Your task to perform on an android device: open app "Duolingo: language lessons" (install if not already installed) and go to login screen Image 0: 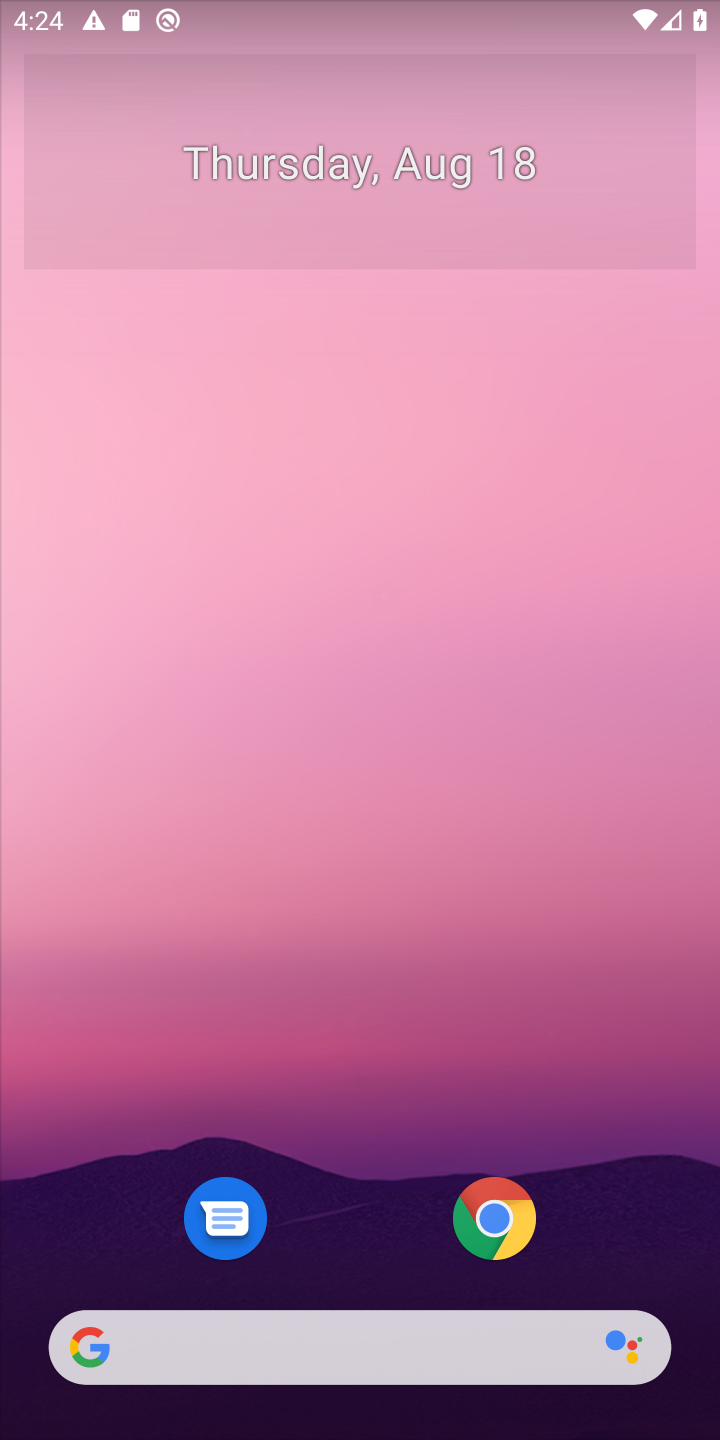
Step 0: drag from (402, 851) to (411, 344)
Your task to perform on an android device: open app "Duolingo: language lessons" (install if not already installed) and go to login screen Image 1: 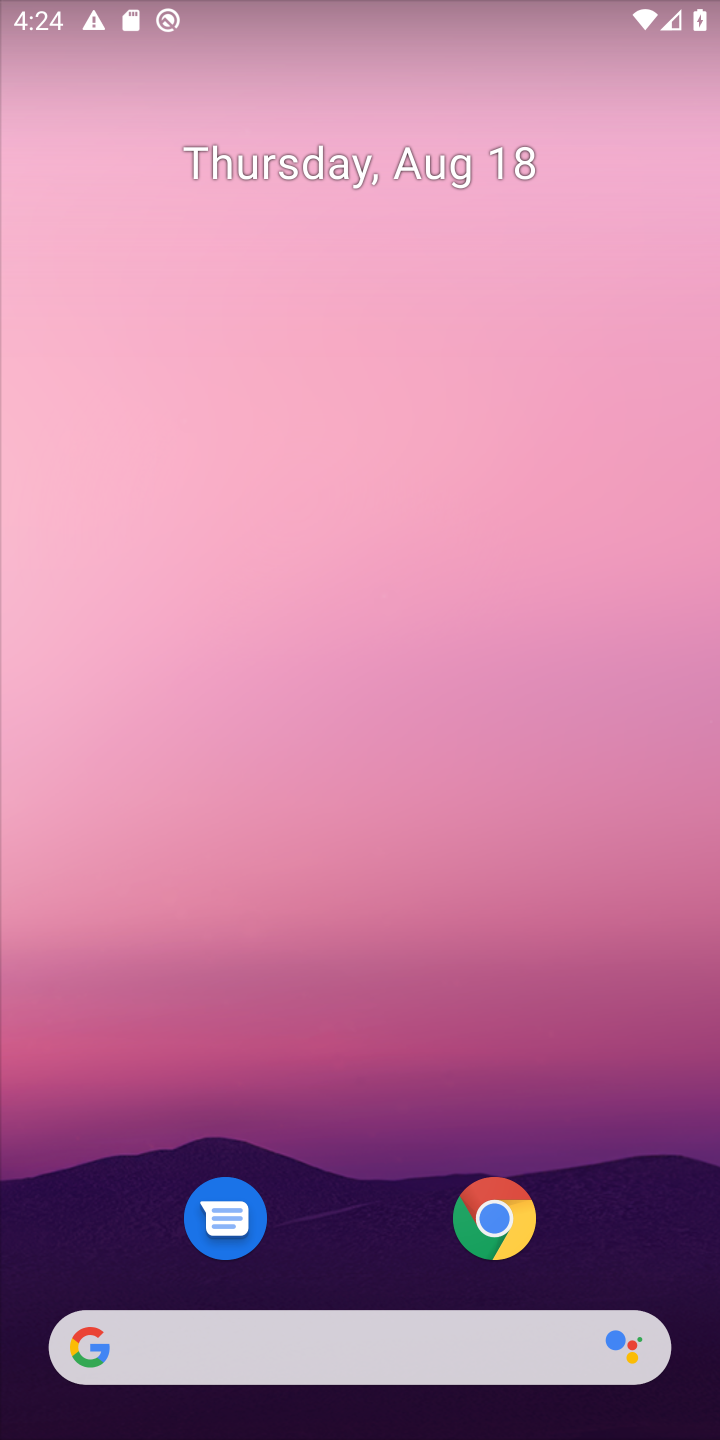
Step 1: drag from (367, 466) to (370, 297)
Your task to perform on an android device: open app "Duolingo: language lessons" (install if not already installed) and go to login screen Image 2: 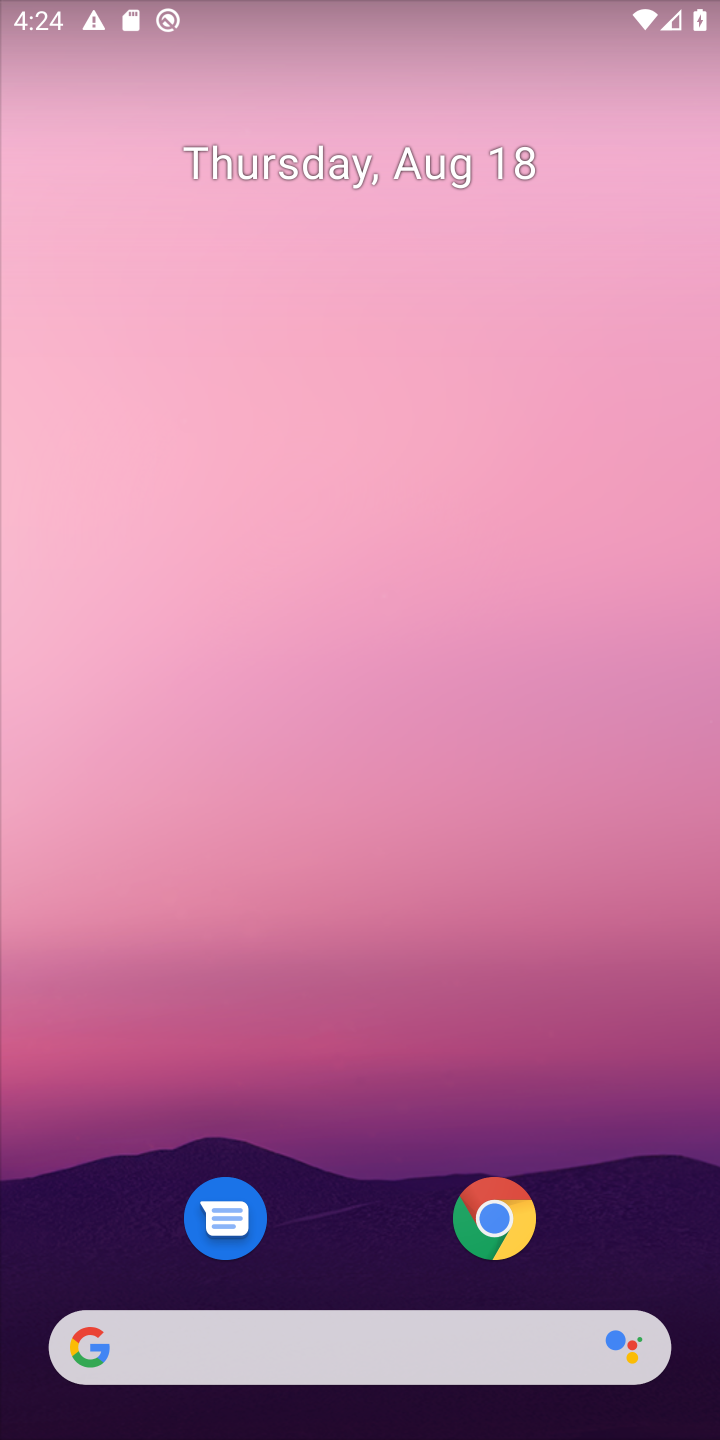
Step 2: drag from (338, 659) to (338, 286)
Your task to perform on an android device: open app "Duolingo: language lessons" (install if not already installed) and go to login screen Image 3: 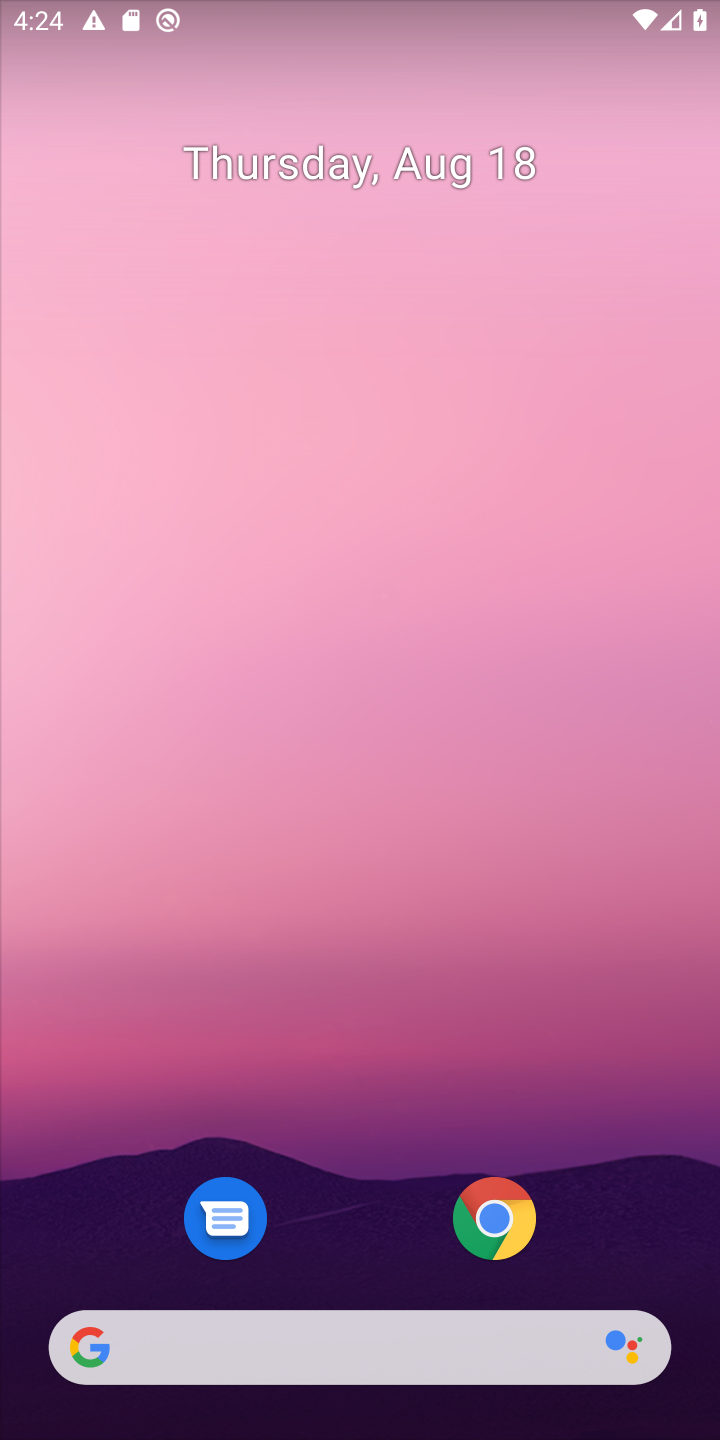
Step 3: drag from (362, 969) to (410, 391)
Your task to perform on an android device: open app "Duolingo: language lessons" (install if not already installed) and go to login screen Image 4: 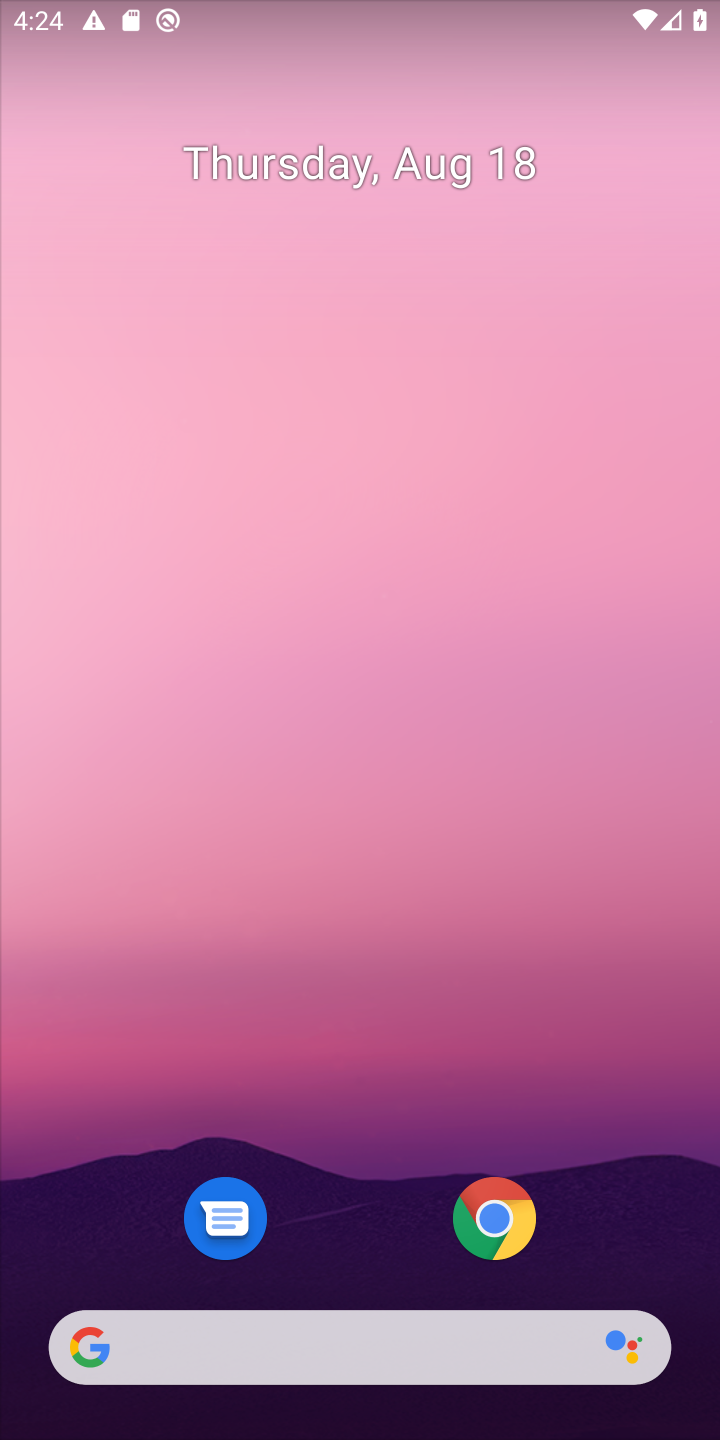
Step 4: drag from (372, 911) to (413, 411)
Your task to perform on an android device: open app "Duolingo: language lessons" (install if not already installed) and go to login screen Image 5: 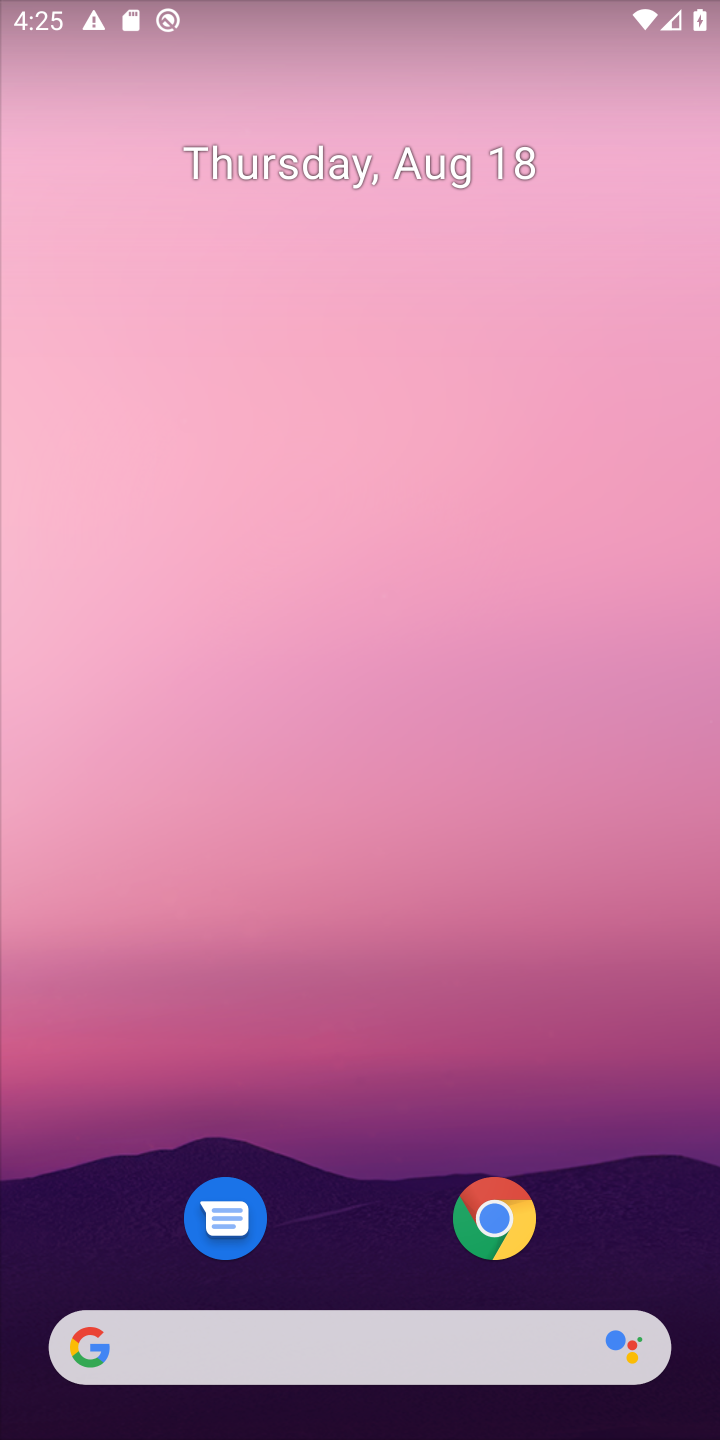
Step 5: drag from (320, 954) to (368, 179)
Your task to perform on an android device: open app "Duolingo: language lessons" (install if not already installed) and go to login screen Image 6: 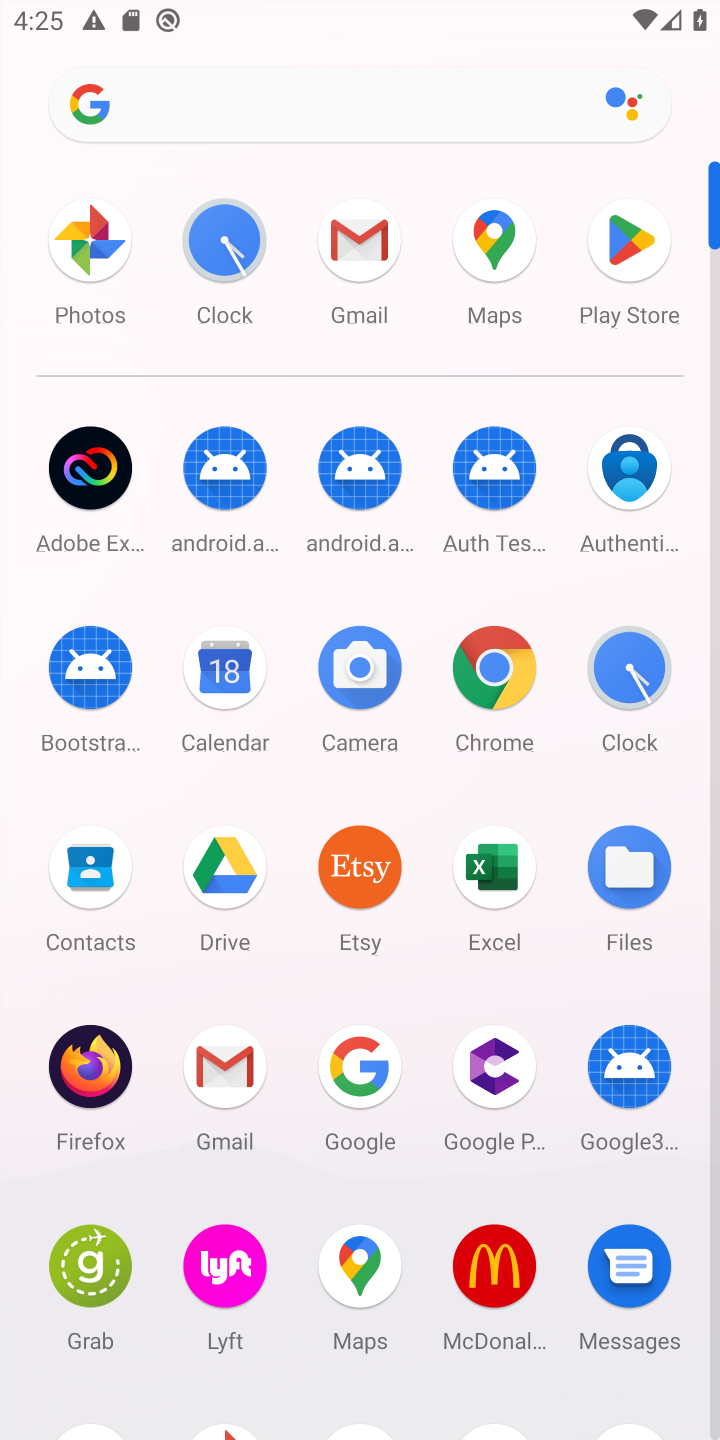
Step 6: click (615, 260)
Your task to perform on an android device: open app "Duolingo: language lessons" (install if not already installed) and go to login screen Image 7: 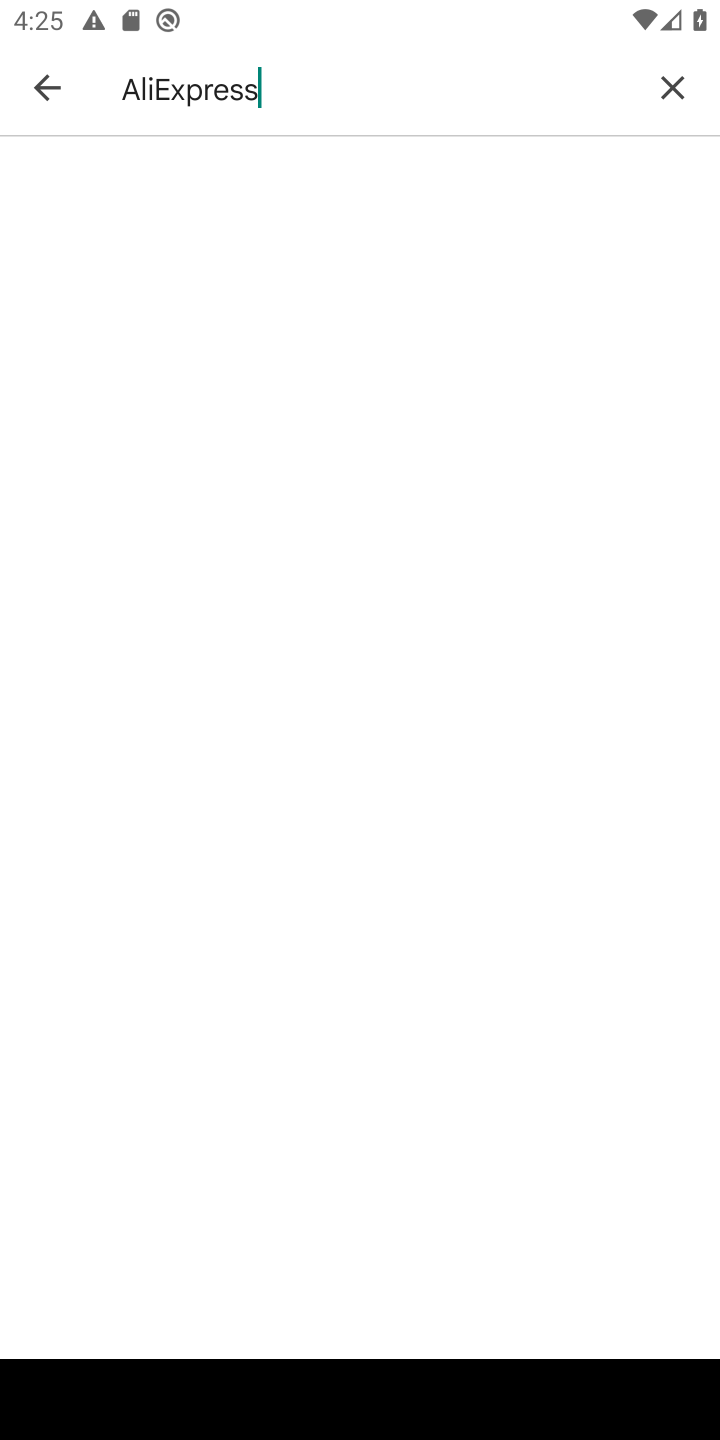
Step 7: click (674, 93)
Your task to perform on an android device: open app "Duolingo: language lessons" (install if not already installed) and go to login screen Image 8: 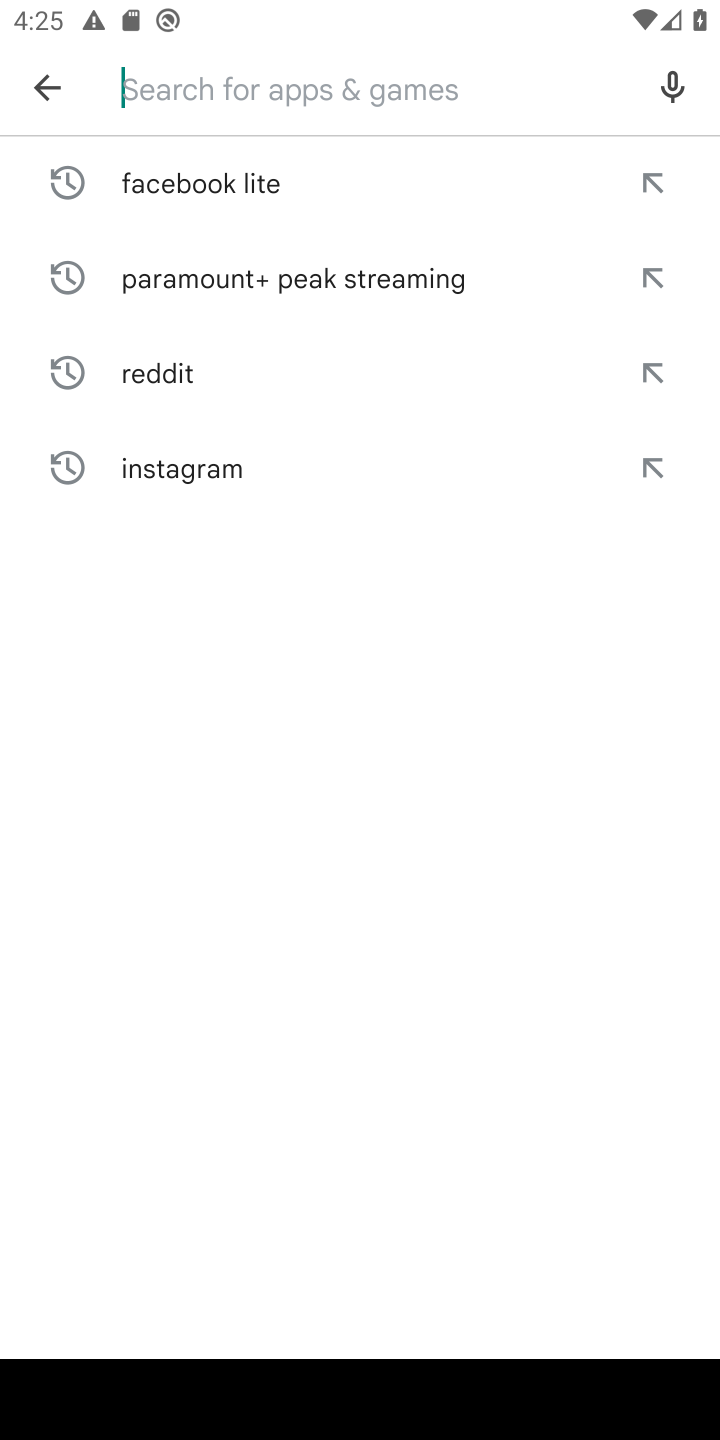
Step 8: type "Duolingo: language lessons"
Your task to perform on an android device: open app "Duolingo: language lessons" (install if not already installed) and go to login screen Image 9: 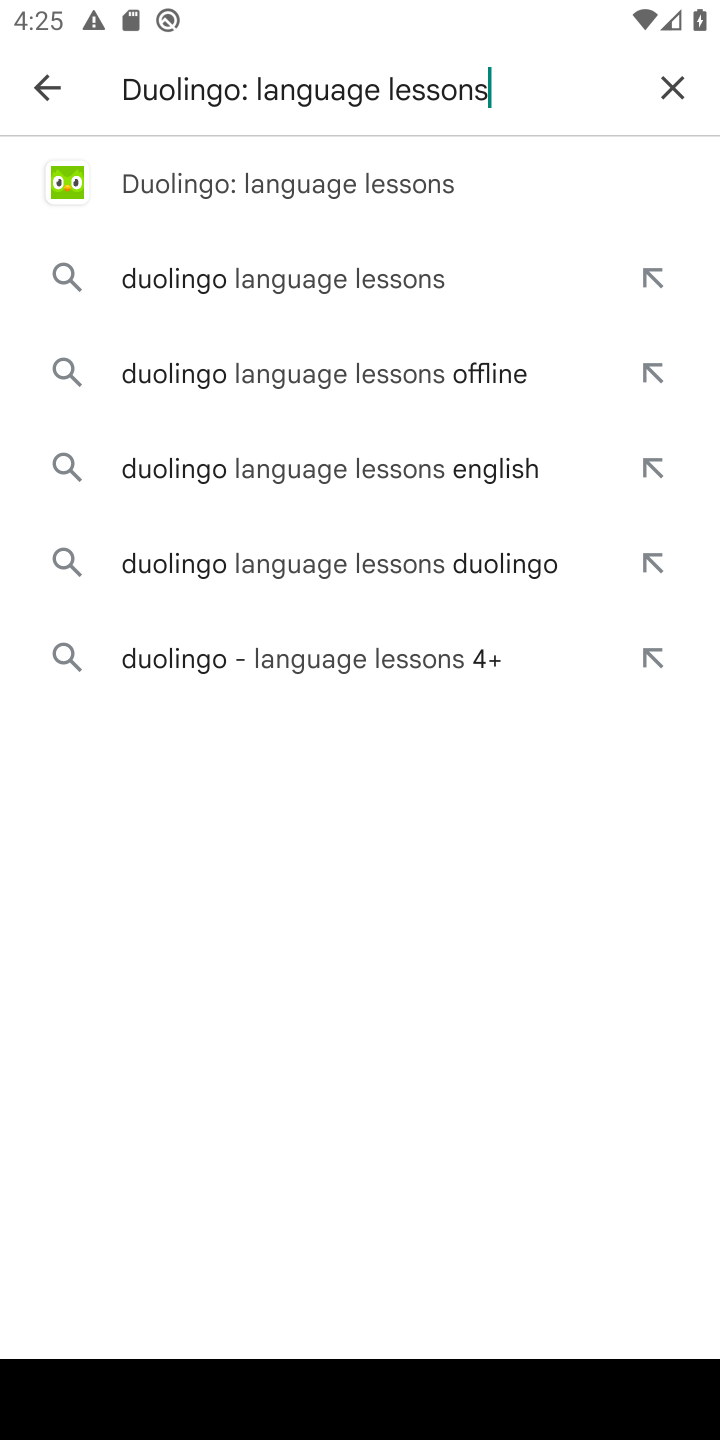
Step 9: click (262, 164)
Your task to perform on an android device: open app "Duolingo: language lessons" (install if not already installed) and go to login screen Image 10: 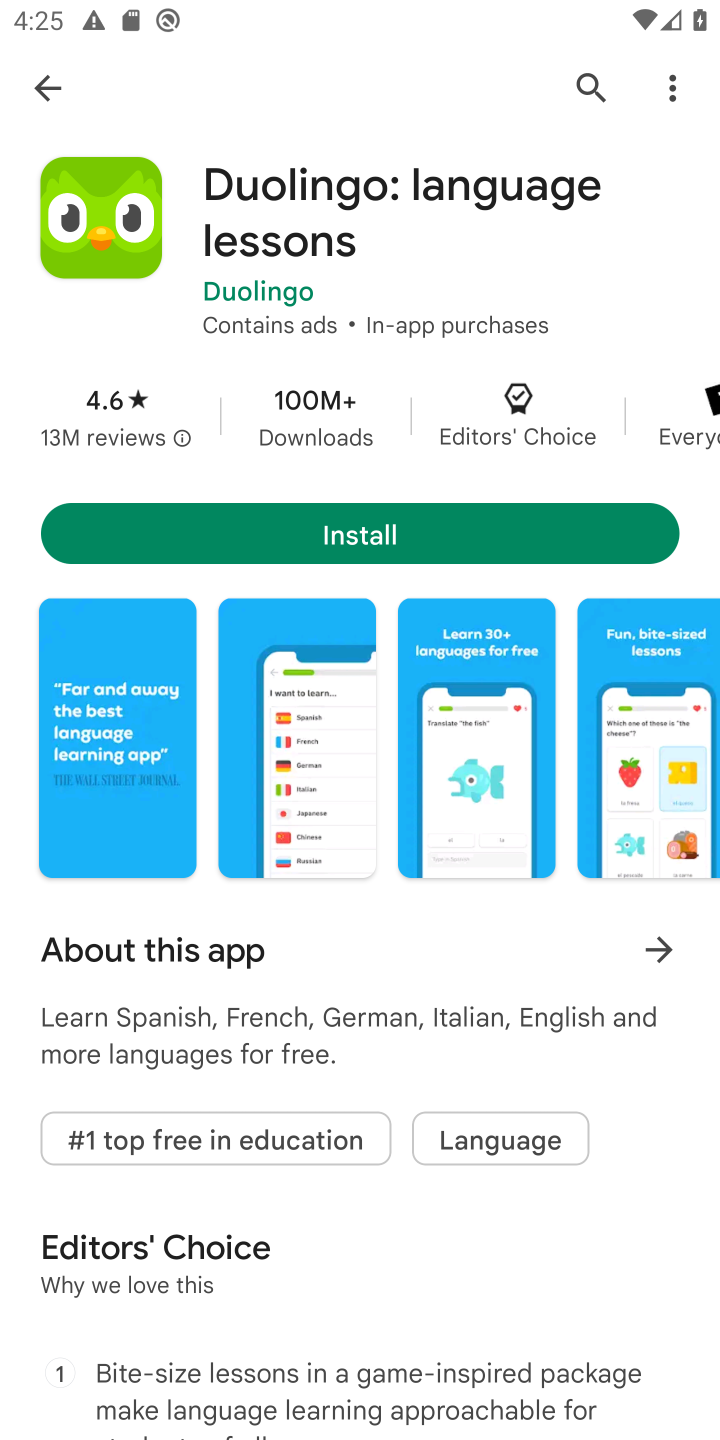
Step 10: click (379, 518)
Your task to perform on an android device: open app "Duolingo: language lessons" (install if not already installed) and go to login screen Image 11: 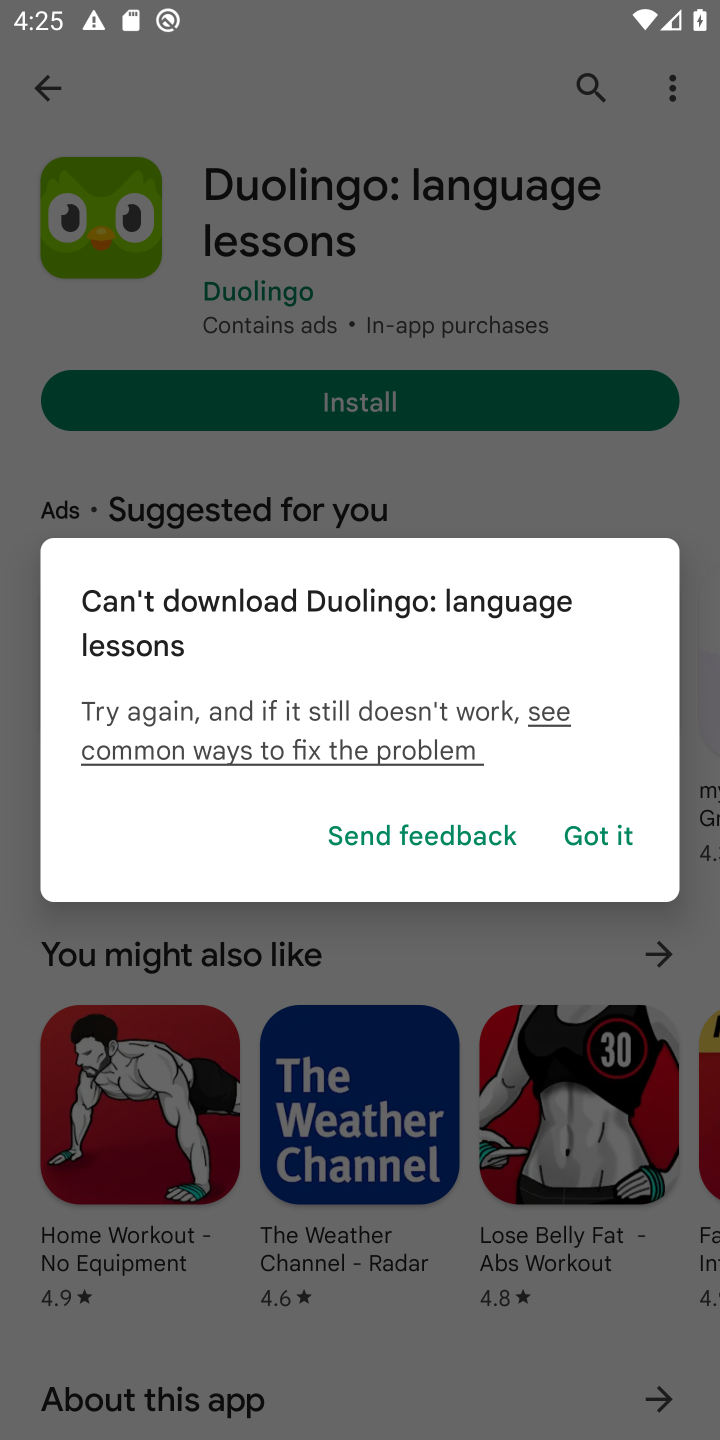
Step 11: click (588, 834)
Your task to perform on an android device: open app "Duolingo: language lessons" (install if not already installed) and go to login screen Image 12: 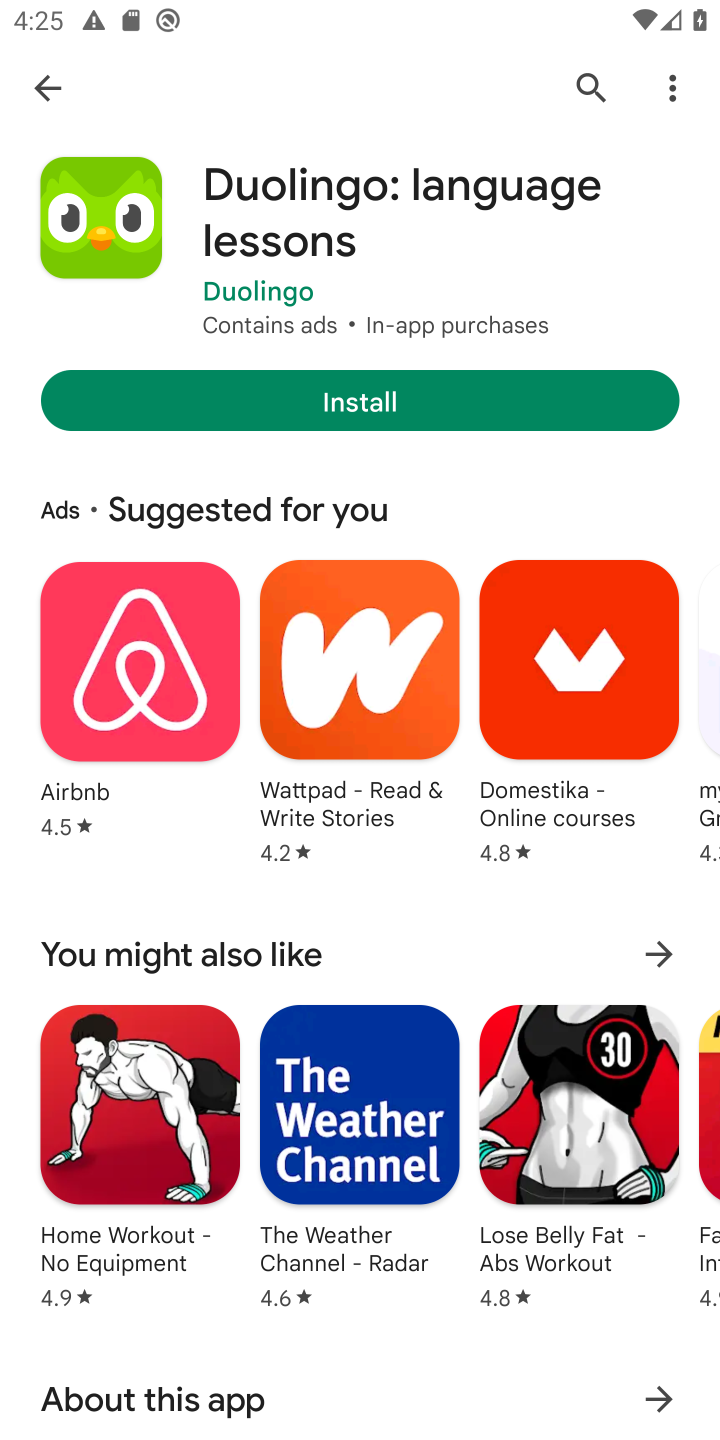
Step 12: click (593, 383)
Your task to perform on an android device: open app "Duolingo: language lessons" (install if not already installed) and go to login screen Image 13: 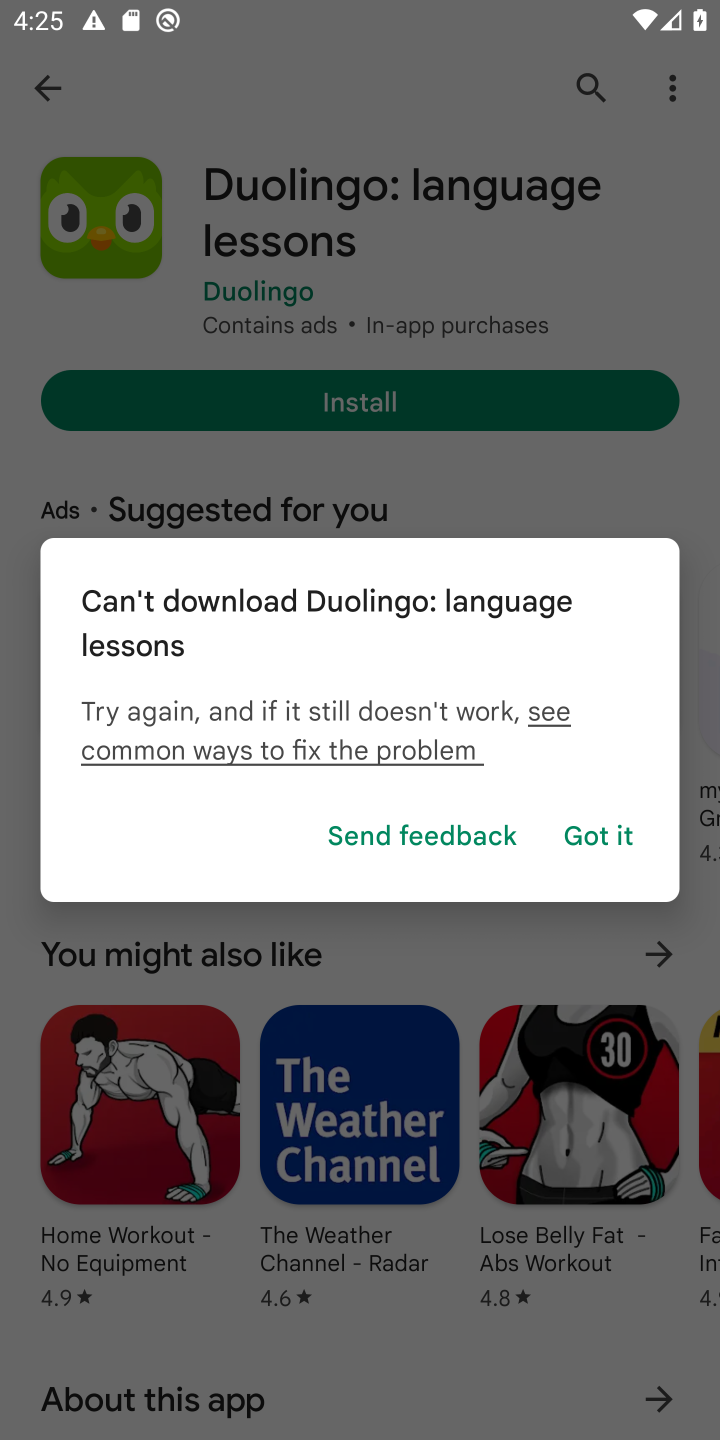
Step 13: click (619, 804)
Your task to perform on an android device: open app "Duolingo: language lessons" (install if not already installed) and go to login screen Image 14: 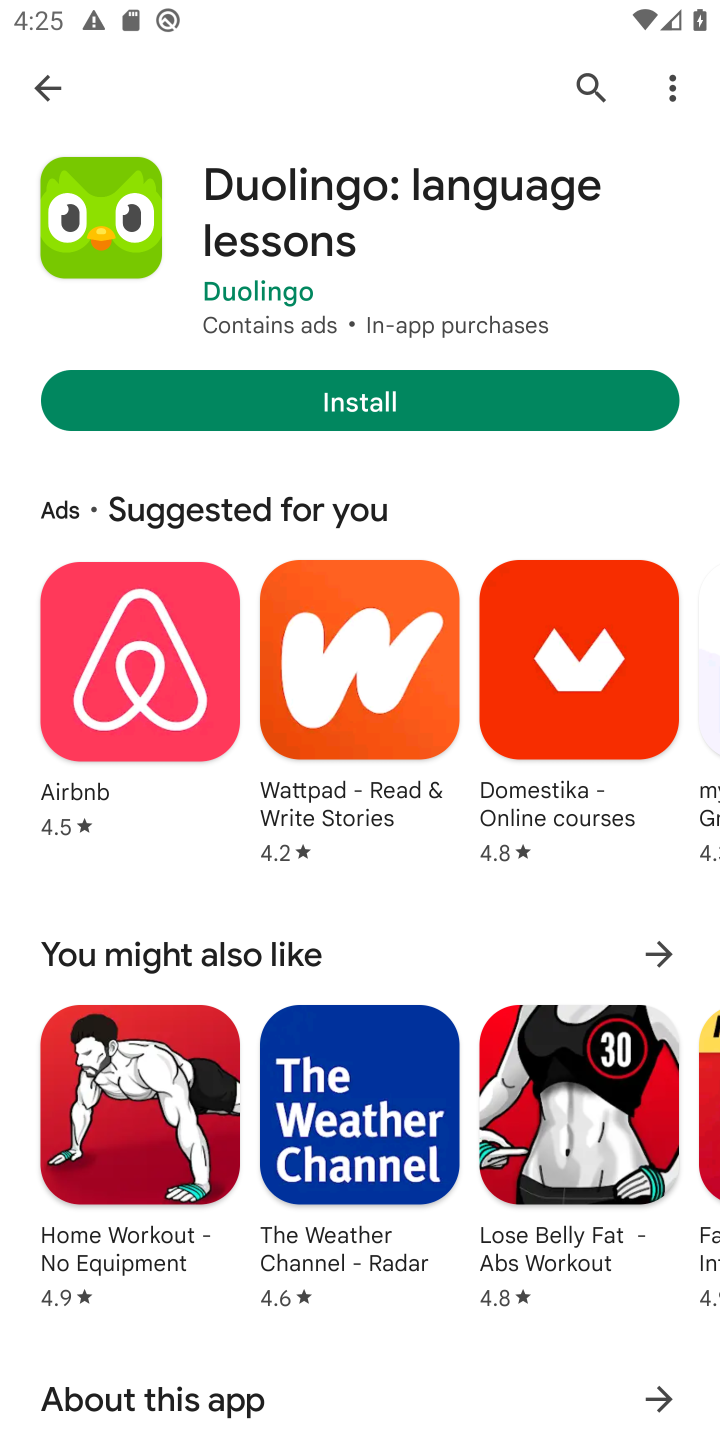
Step 14: click (440, 421)
Your task to perform on an android device: open app "Duolingo: language lessons" (install if not already installed) and go to login screen Image 15: 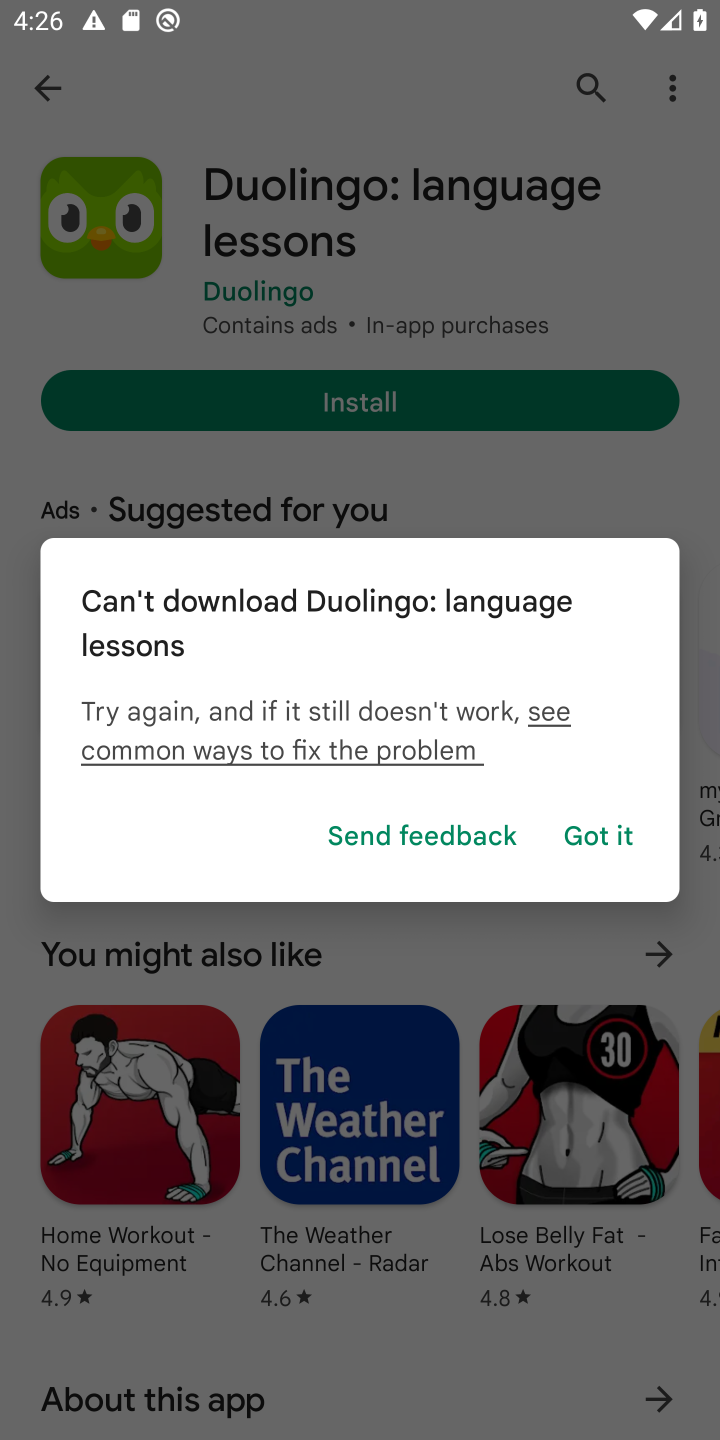
Step 15: click (593, 822)
Your task to perform on an android device: open app "Duolingo: language lessons" (install if not already installed) and go to login screen Image 16: 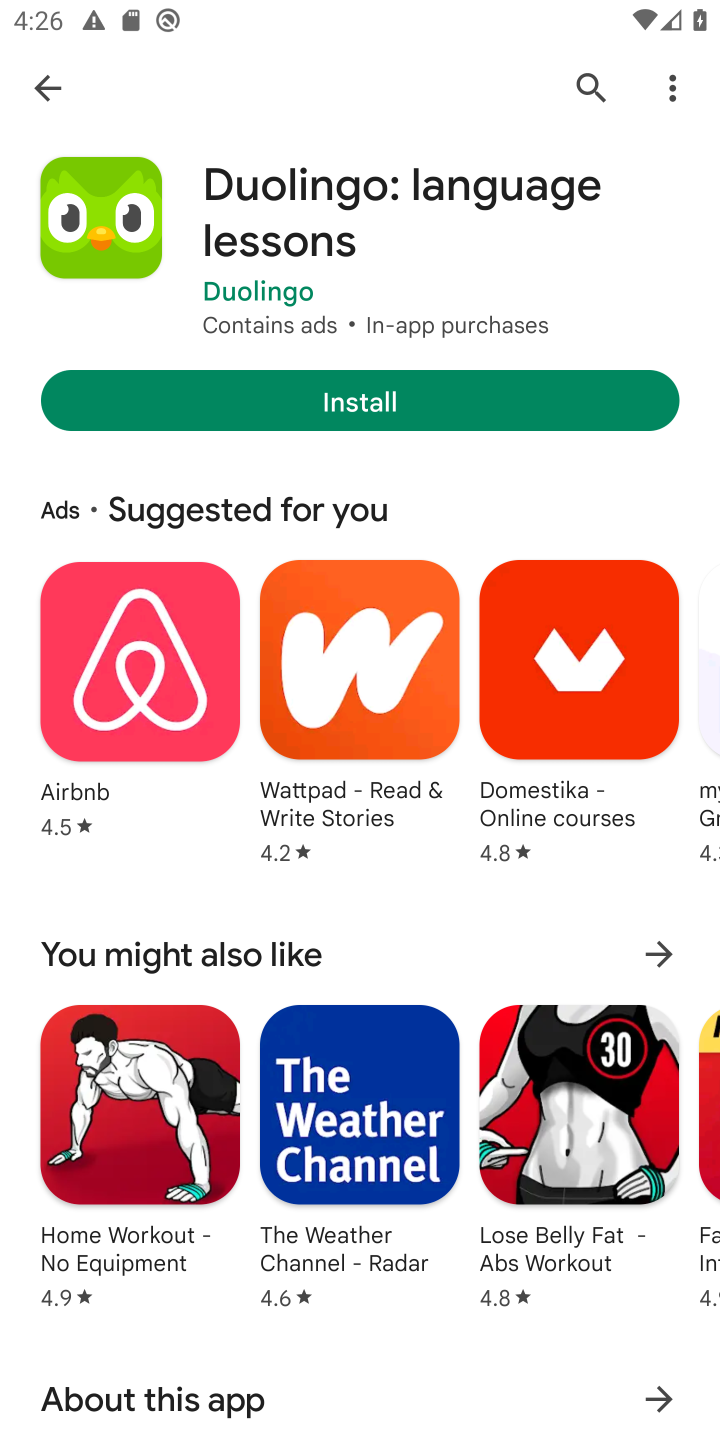
Step 16: task complete